Your task to perform on an android device: Open internet settings Image 0: 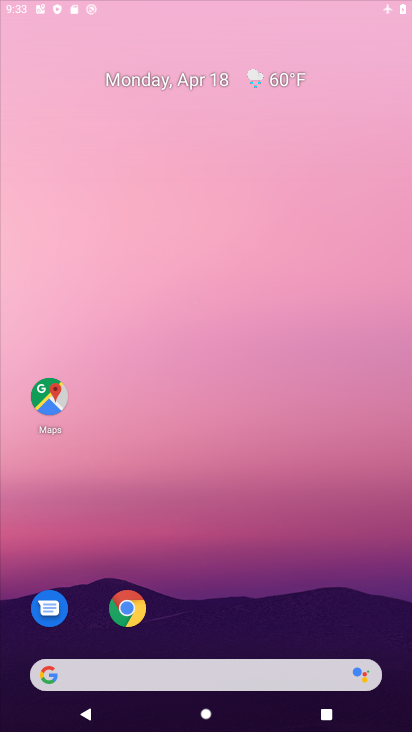
Step 0: drag from (234, 94) to (282, 0)
Your task to perform on an android device: Open internet settings Image 1: 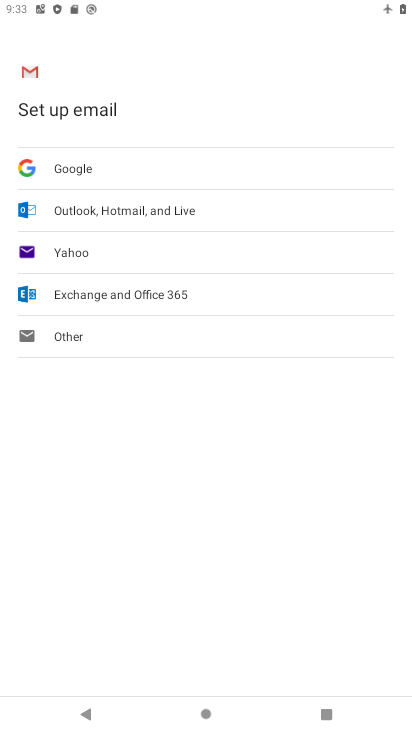
Step 1: press home button
Your task to perform on an android device: Open internet settings Image 2: 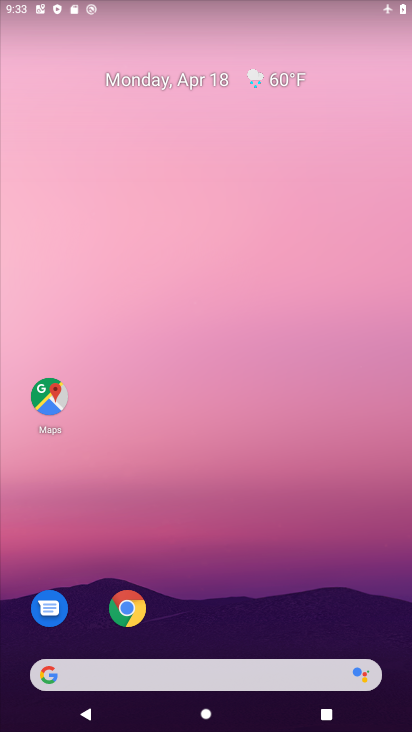
Step 2: drag from (193, 619) to (279, 0)
Your task to perform on an android device: Open internet settings Image 3: 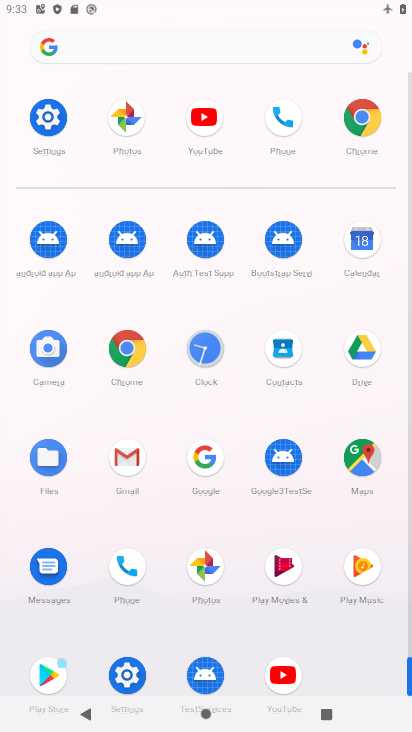
Step 3: click (40, 105)
Your task to perform on an android device: Open internet settings Image 4: 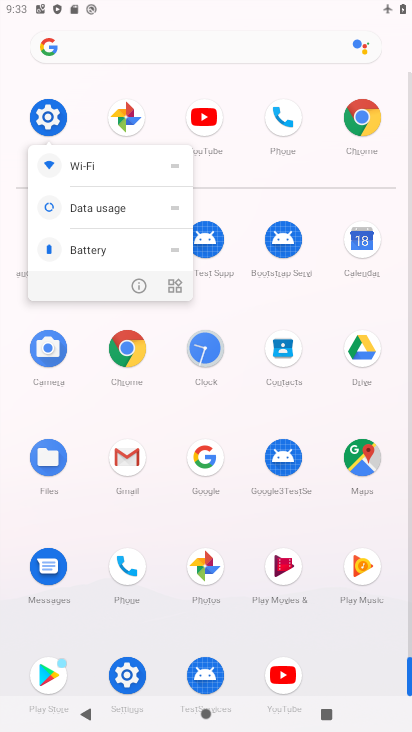
Step 4: click (133, 288)
Your task to perform on an android device: Open internet settings Image 5: 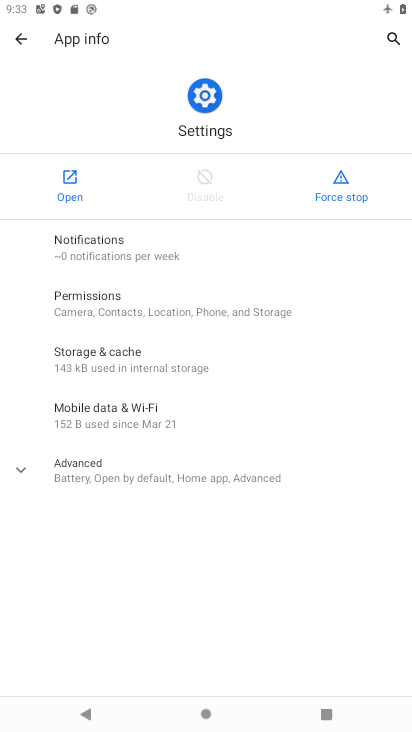
Step 5: click (67, 175)
Your task to perform on an android device: Open internet settings Image 6: 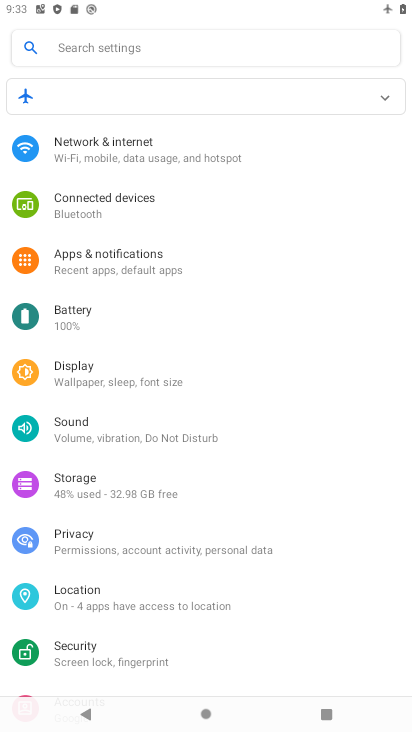
Step 6: click (206, 158)
Your task to perform on an android device: Open internet settings Image 7: 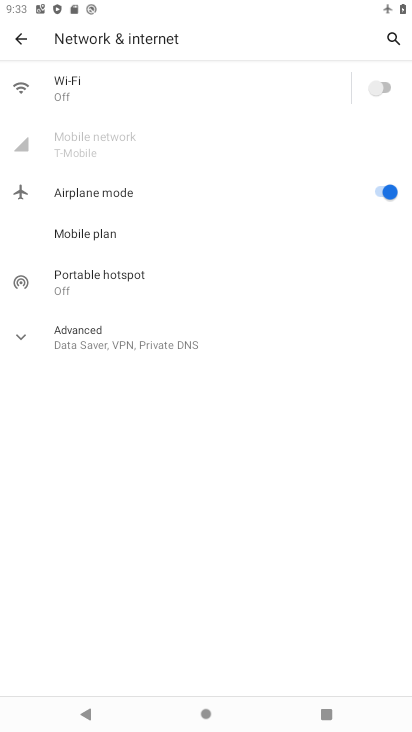
Step 7: task complete